Your task to perform on an android device: check the backup settings in the google photos Image 0: 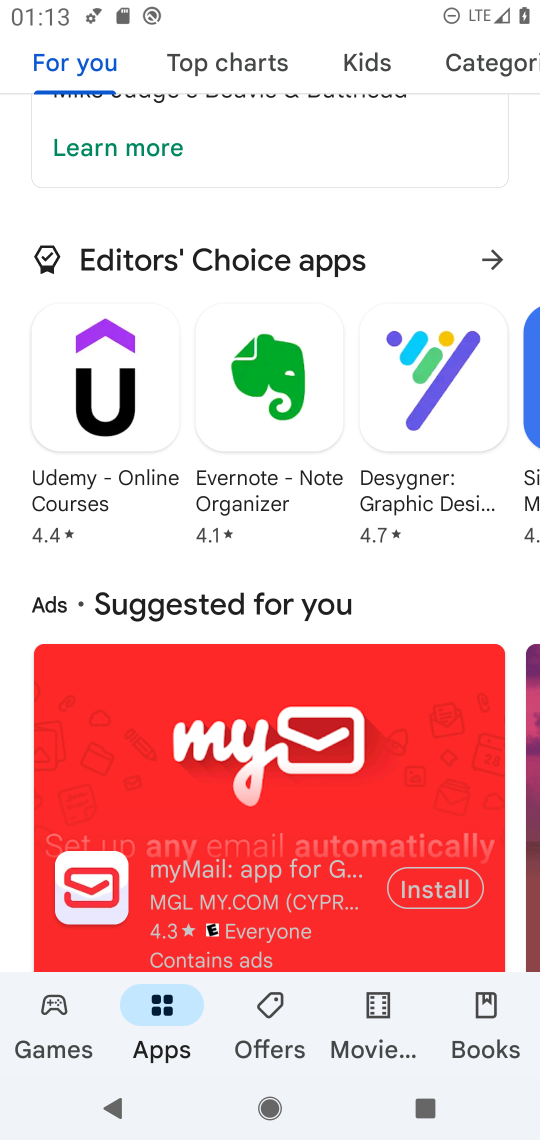
Step 0: press home button
Your task to perform on an android device: check the backup settings in the google photos Image 1: 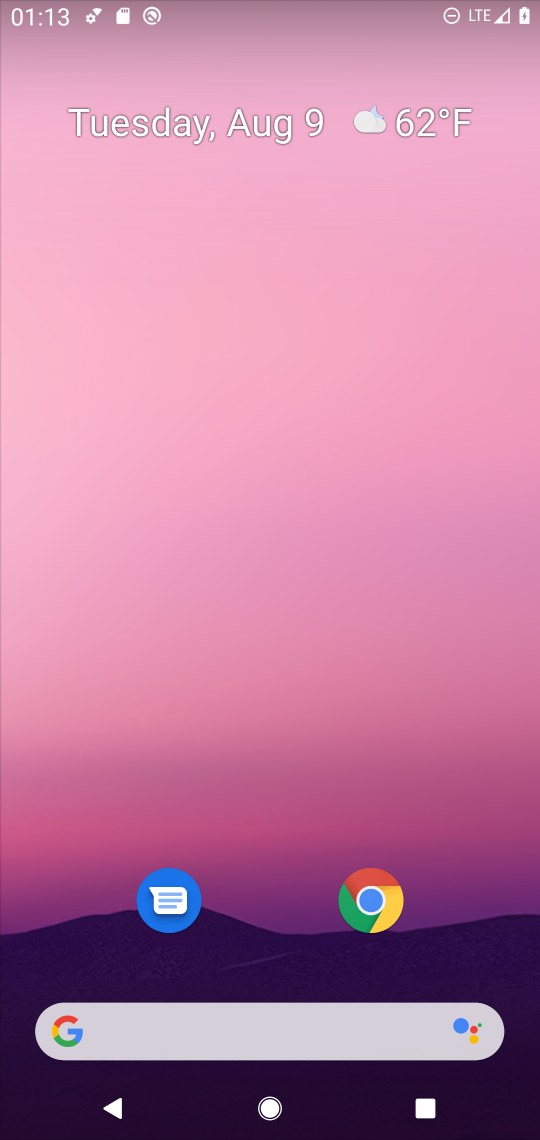
Step 1: drag from (276, 806) to (320, 85)
Your task to perform on an android device: check the backup settings in the google photos Image 2: 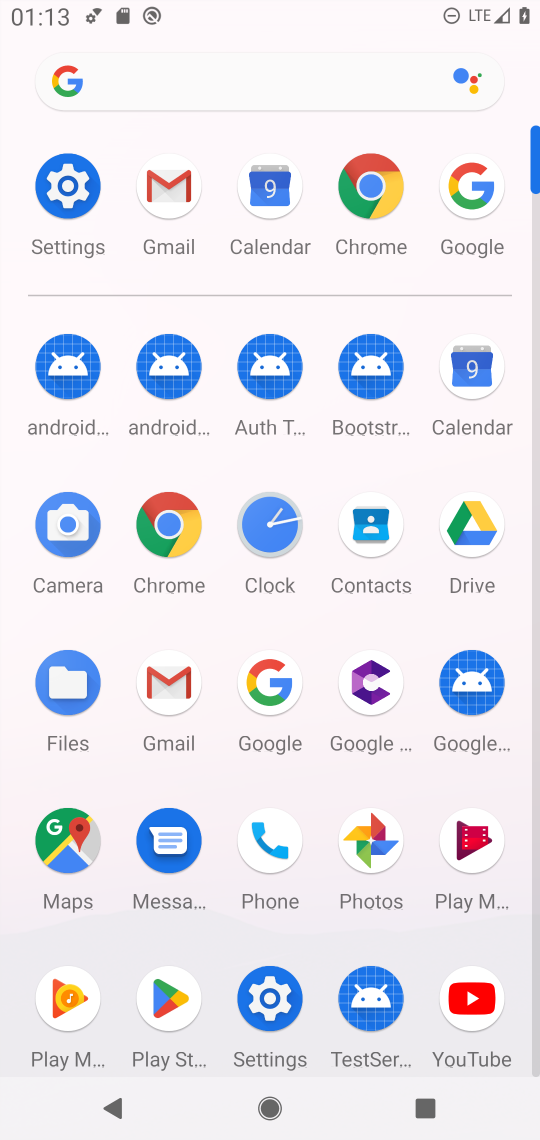
Step 2: click (364, 837)
Your task to perform on an android device: check the backup settings in the google photos Image 3: 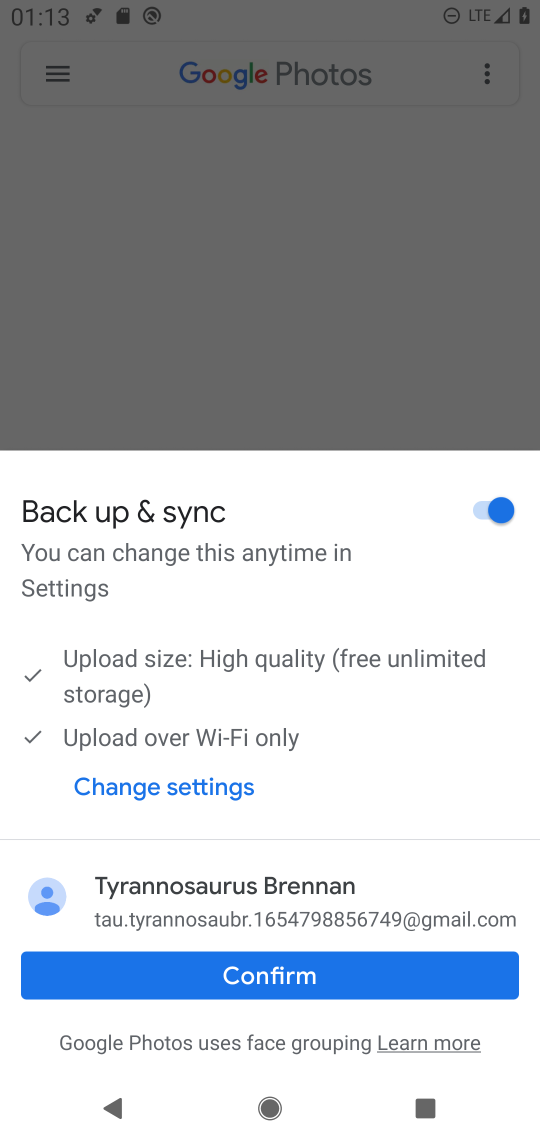
Step 3: click (288, 973)
Your task to perform on an android device: check the backup settings in the google photos Image 4: 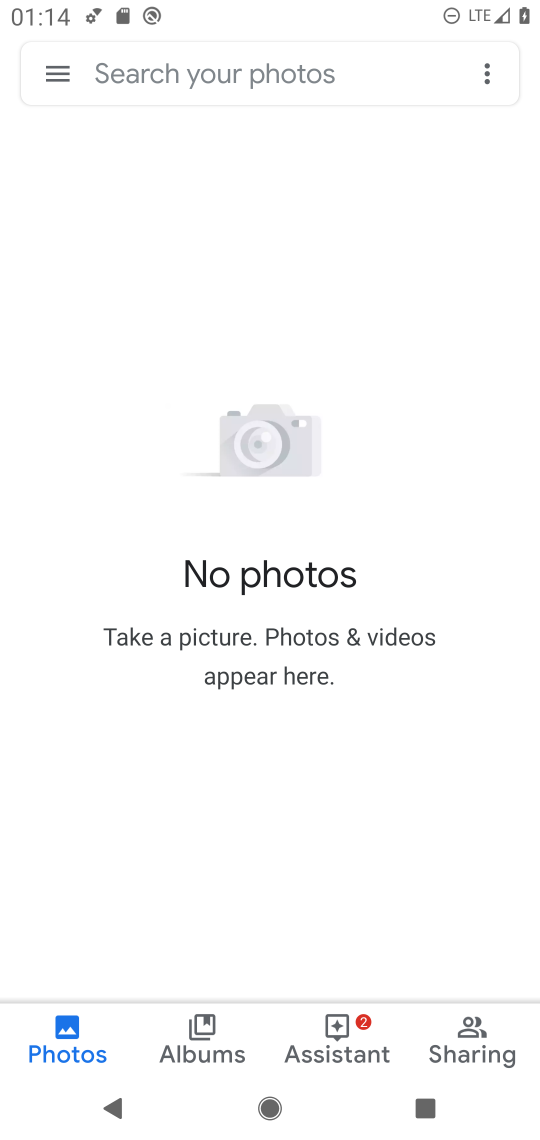
Step 4: click (56, 74)
Your task to perform on an android device: check the backup settings in the google photos Image 5: 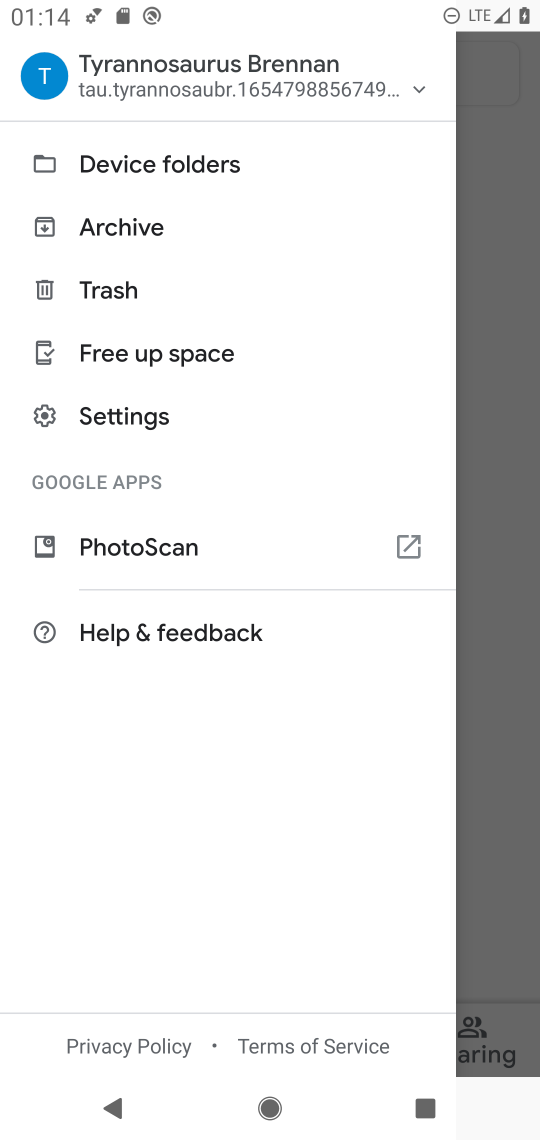
Step 5: click (202, 410)
Your task to perform on an android device: check the backup settings in the google photos Image 6: 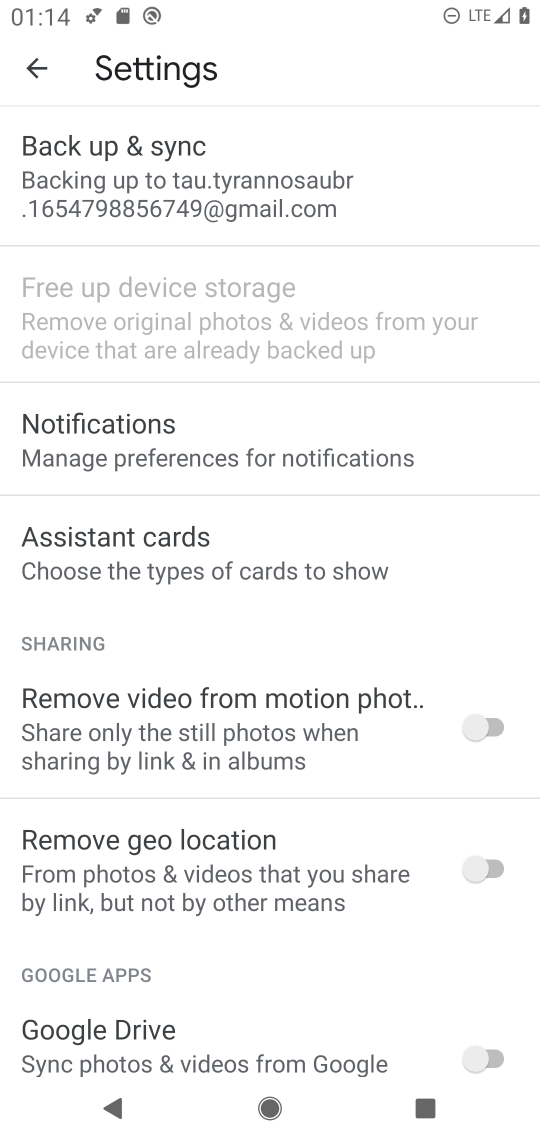
Step 6: click (203, 197)
Your task to perform on an android device: check the backup settings in the google photos Image 7: 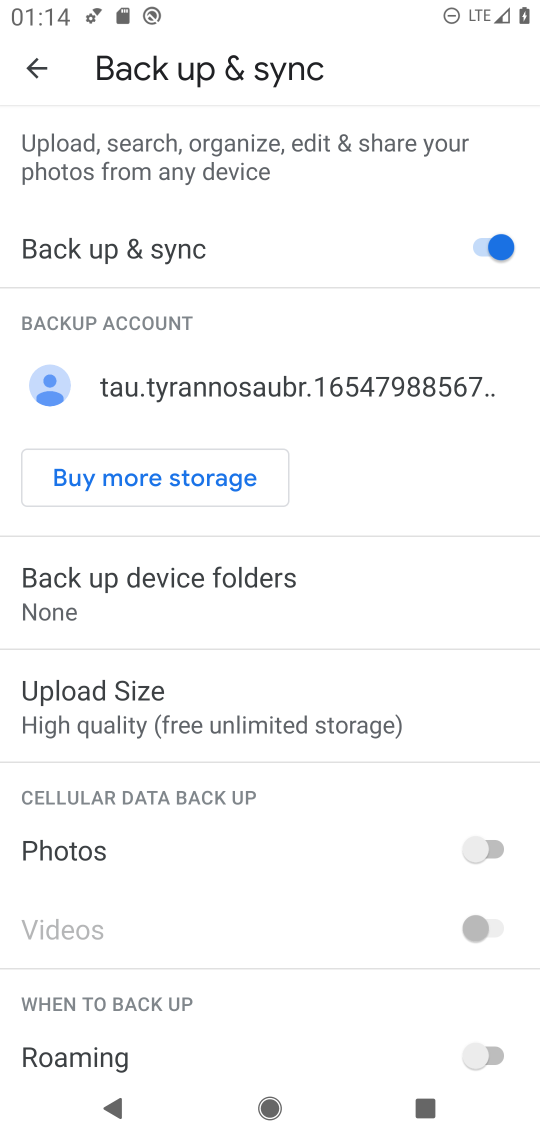
Step 7: task complete